Your task to perform on an android device: Open calendar and show me the first week of next month Image 0: 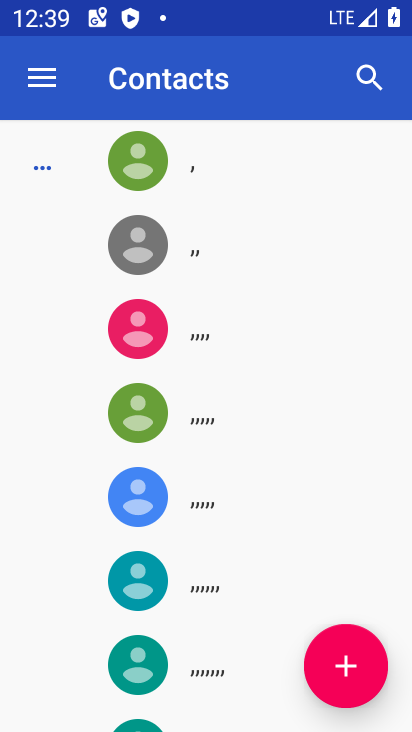
Step 0: press home button
Your task to perform on an android device: Open calendar and show me the first week of next month Image 1: 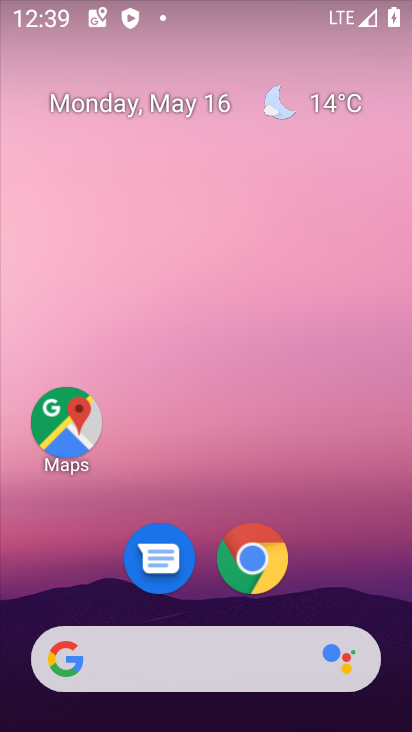
Step 1: drag from (353, 384) to (382, 44)
Your task to perform on an android device: Open calendar and show me the first week of next month Image 2: 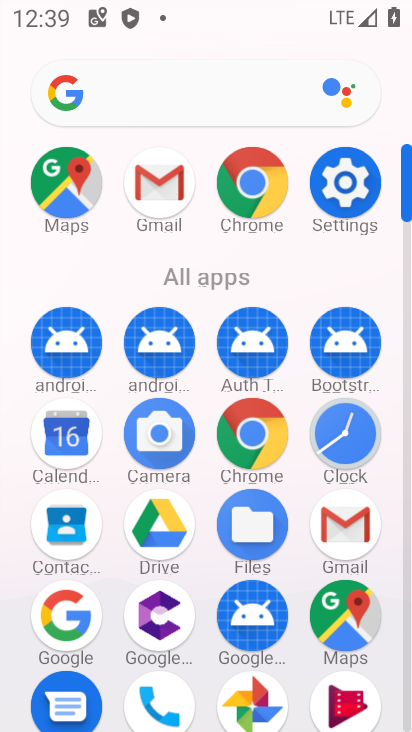
Step 2: click (42, 437)
Your task to perform on an android device: Open calendar and show me the first week of next month Image 3: 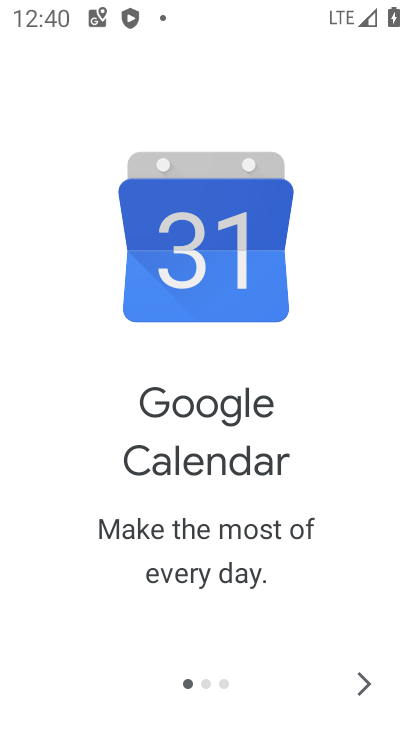
Step 3: click (352, 685)
Your task to perform on an android device: Open calendar and show me the first week of next month Image 4: 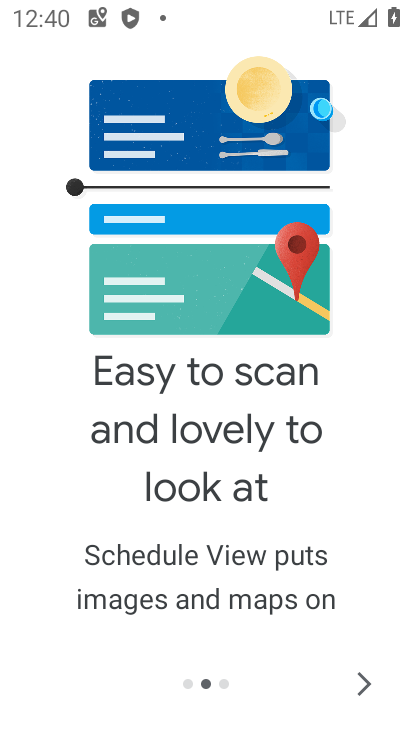
Step 4: click (352, 682)
Your task to perform on an android device: Open calendar and show me the first week of next month Image 5: 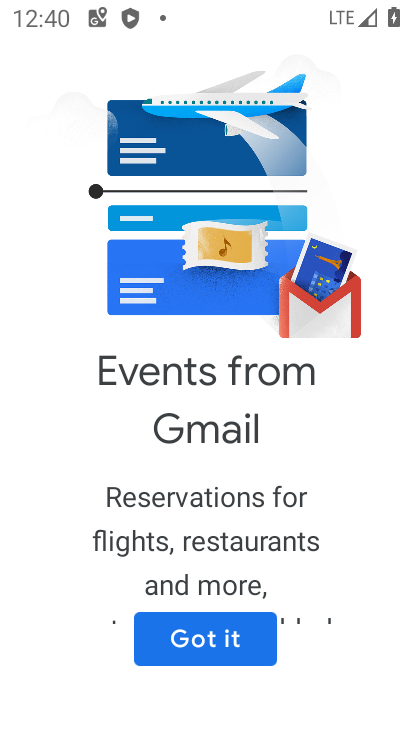
Step 5: click (252, 636)
Your task to perform on an android device: Open calendar and show me the first week of next month Image 6: 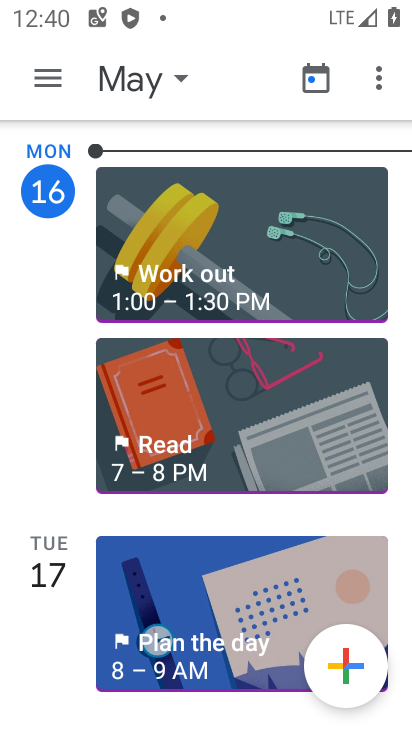
Step 6: click (141, 59)
Your task to perform on an android device: Open calendar and show me the first week of next month Image 7: 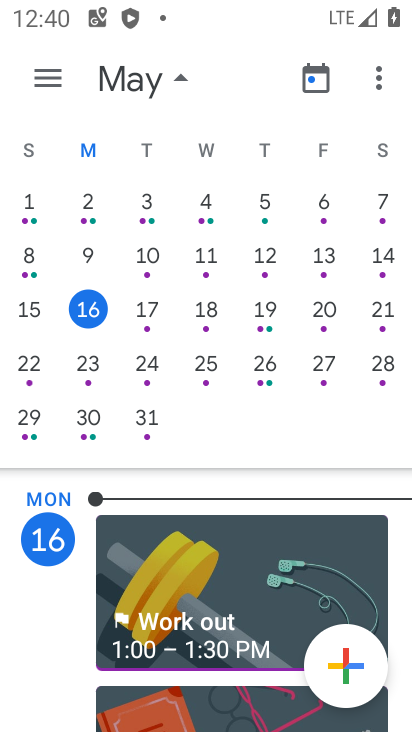
Step 7: drag from (320, 367) to (106, 9)
Your task to perform on an android device: Open calendar and show me the first week of next month Image 8: 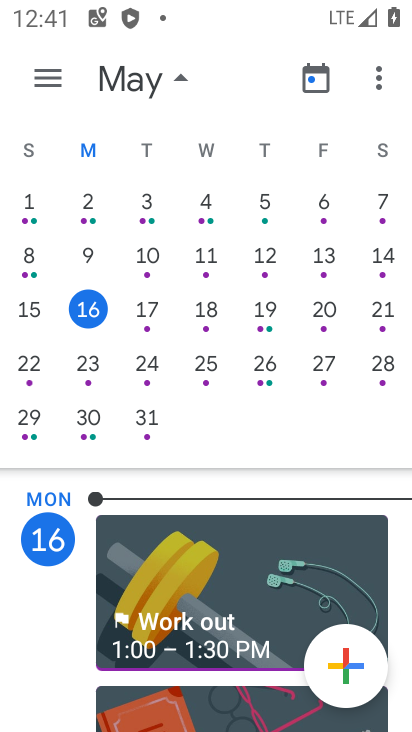
Step 8: click (321, 211)
Your task to perform on an android device: Open calendar and show me the first week of next month Image 9: 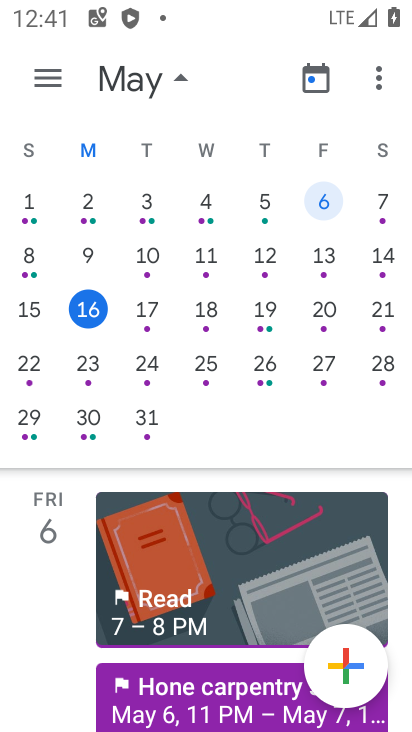
Step 9: task complete